Your task to perform on an android device: stop showing notifications on the lock screen Image 0: 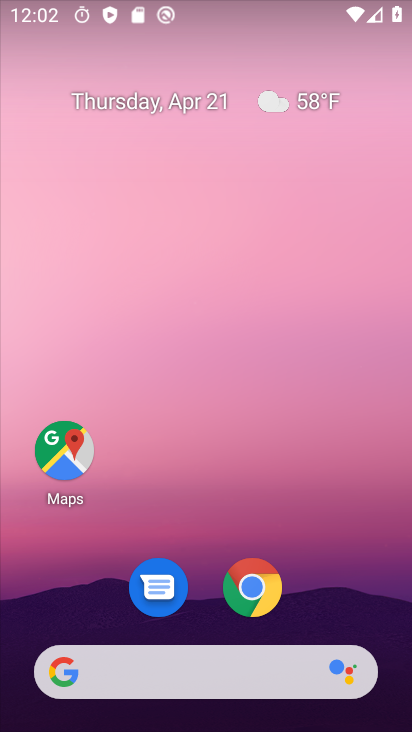
Step 0: drag from (212, 611) to (361, 2)
Your task to perform on an android device: stop showing notifications on the lock screen Image 1: 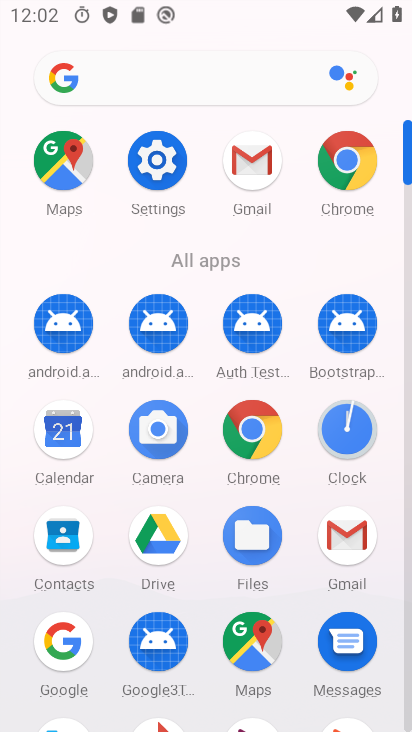
Step 1: click (163, 171)
Your task to perform on an android device: stop showing notifications on the lock screen Image 2: 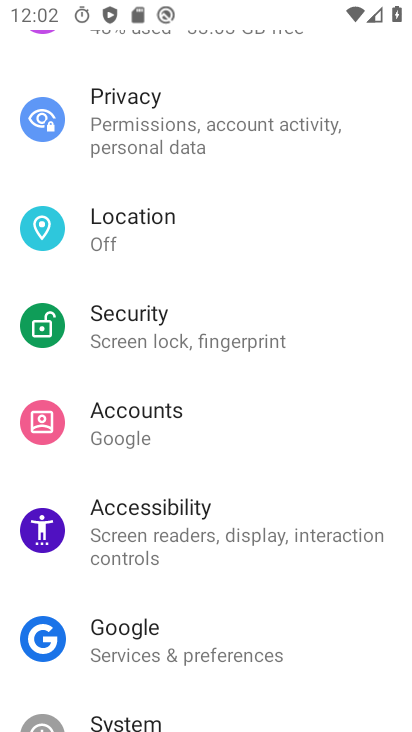
Step 2: drag from (196, 612) to (168, 721)
Your task to perform on an android device: stop showing notifications on the lock screen Image 3: 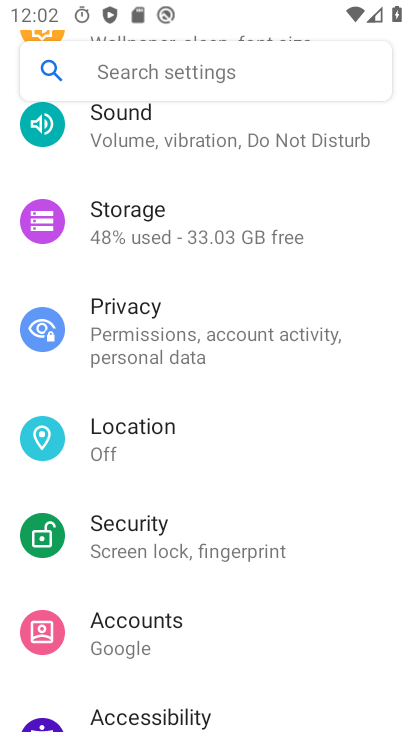
Step 3: drag from (181, 228) to (171, 731)
Your task to perform on an android device: stop showing notifications on the lock screen Image 4: 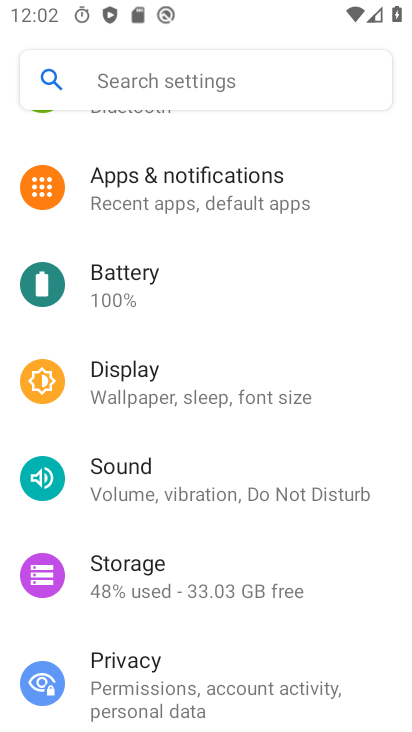
Step 4: click (207, 202)
Your task to perform on an android device: stop showing notifications on the lock screen Image 5: 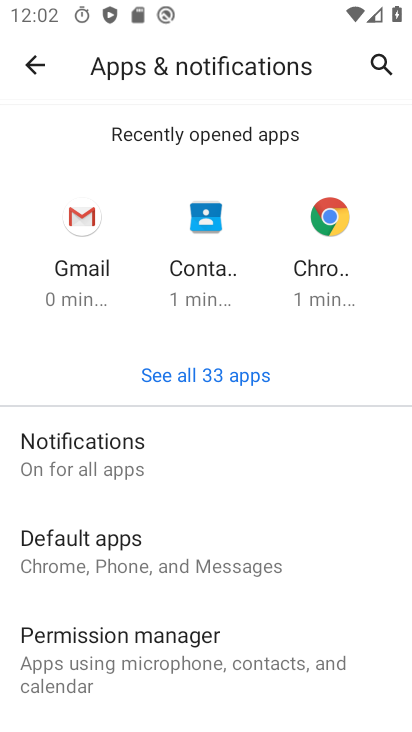
Step 5: click (116, 465)
Your task to perform on an android device: stop showing notifications on the lock screen Image 6: 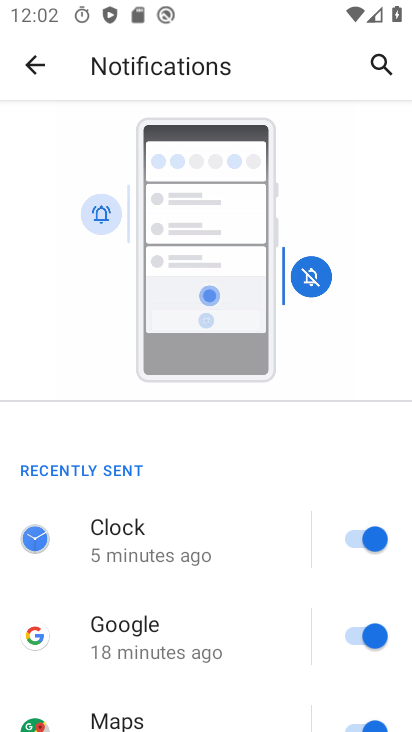
Step 6: drag from (148, 606) to (235, 136)
Your task to perform on an android device: stop showing notifications on the lock screen Image 7: 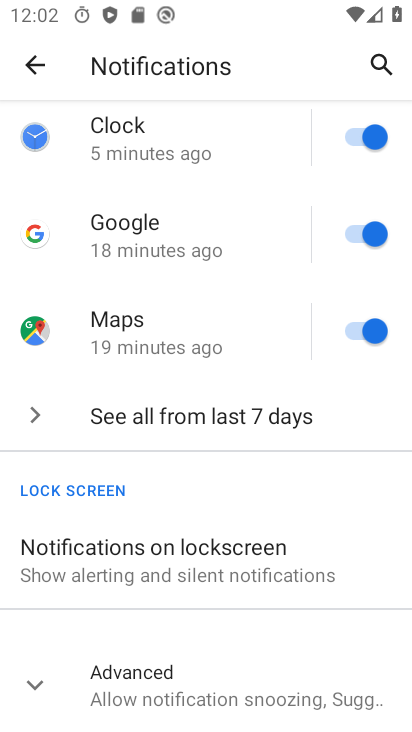
Step 7: click (155, 560)
Your task to perform on an android device: stop showing notifications on the lock screen Image 8: 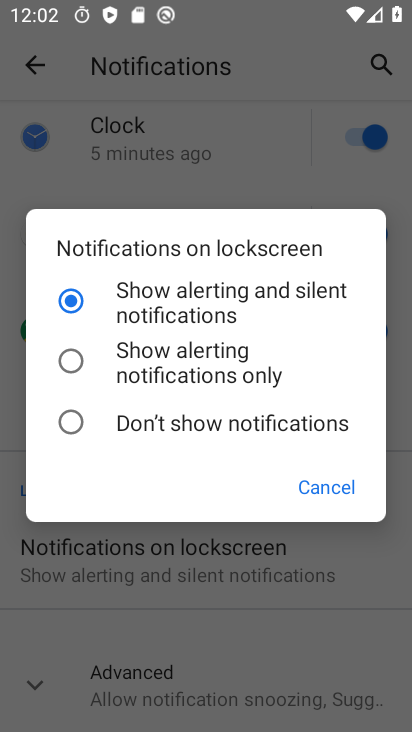
Step 8: click (69, 416)
Your task to perform on an android device: stop showing notifications on the lock screen Image 9: 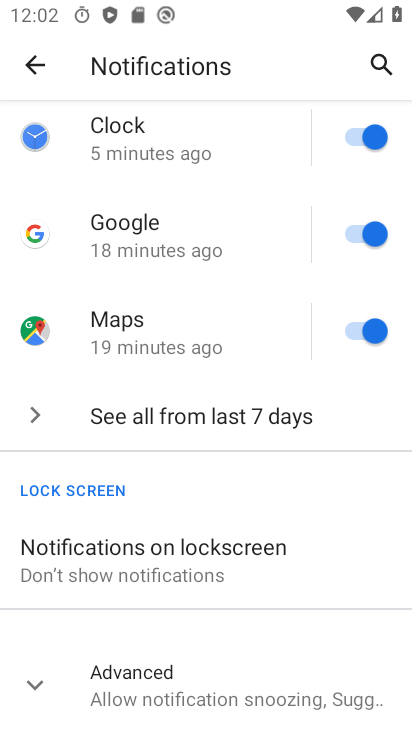
Step 9: task complete